Your task to perform on an android device: What's on my calendar tomorrow? Image 0: 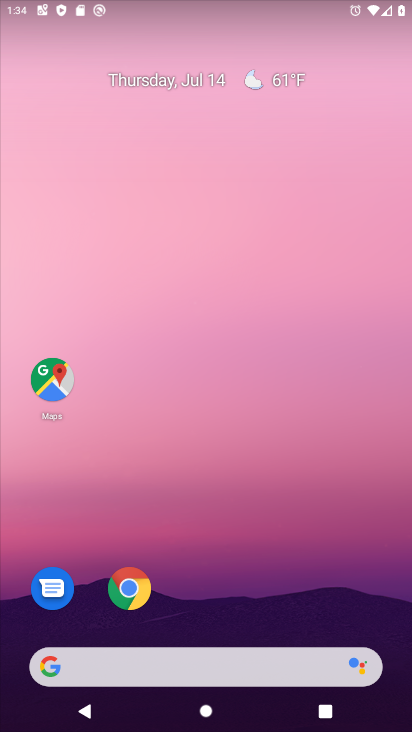
Step 0: drag from (210, 622) to (239, 307)
Your task to perform on an android device: What's on my calendar tomorrow? Image 1: 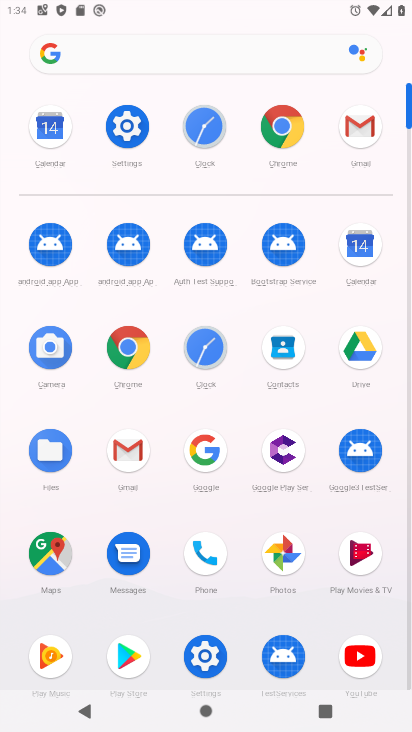
Step 1: click (356, 238)
Your task to perform on an android device: What's on my calendar tomorrow? Image 2: 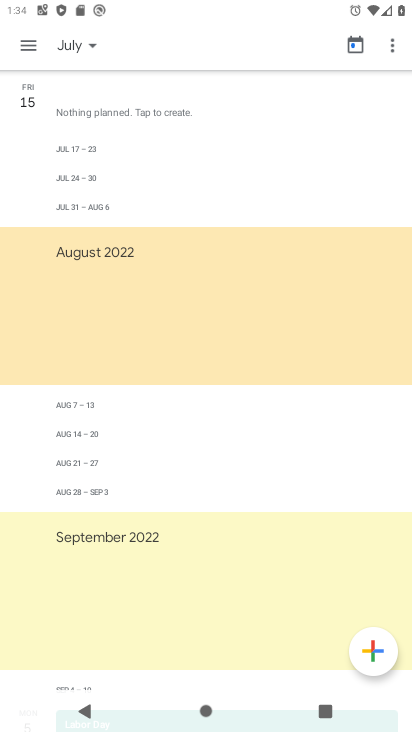
Step 2: task complete